Your task to perform on an android device: Go to accessibility settings Image 0: 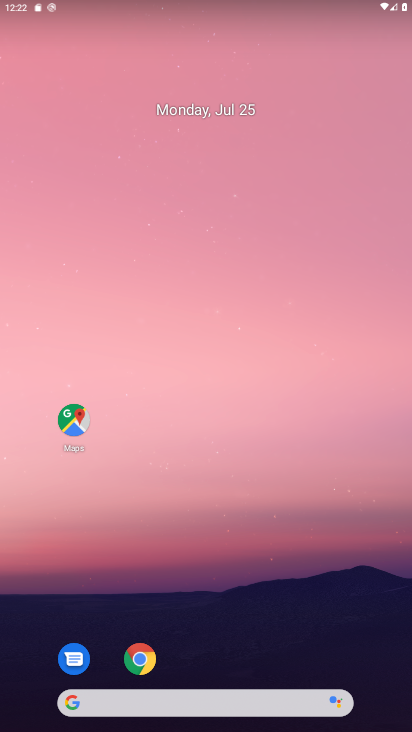
Step 0: press home button
Your task to perform on an android device: Go to accessibility settings Image 1: 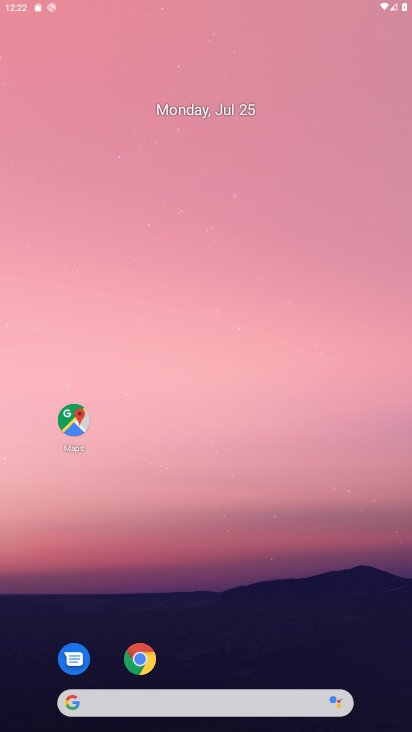
Step 1: drag from (224, 671) to (224, 41)
Your task to perform on an android device: Go to accessibility settings Image 2: 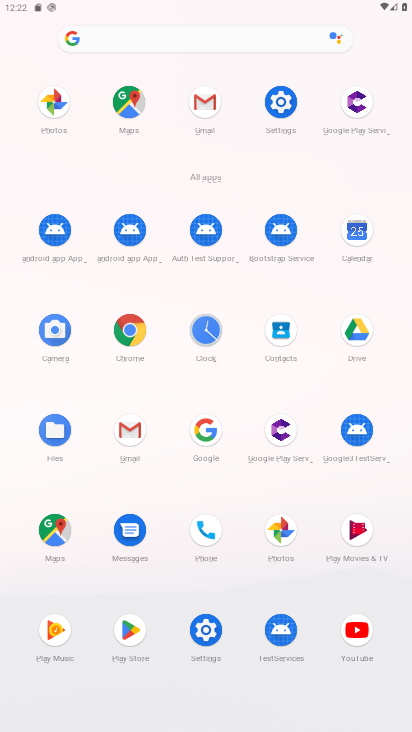
Step 2: click (279, 93)
Your task to perform on an android device: Go to accessibility settings Image 3: 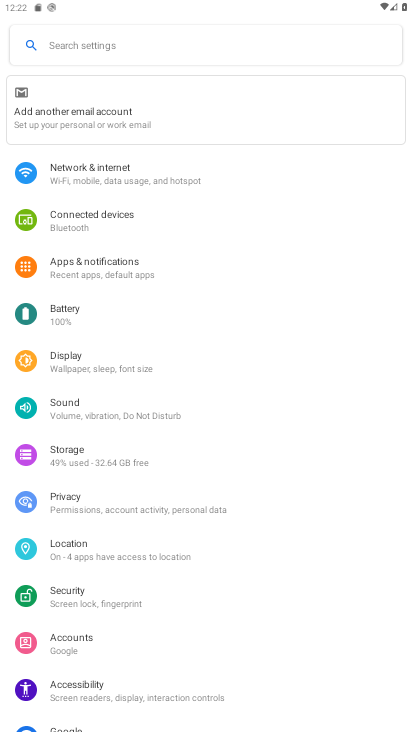
Step 3: click (110, 681)
Your task to perform on an android device: Go to accessibility settings Image 4: 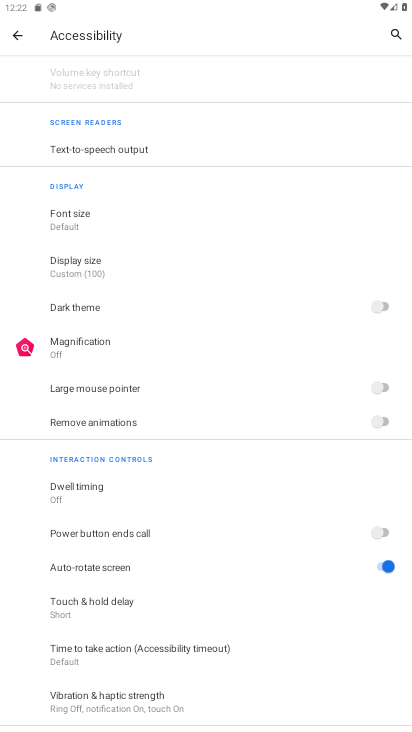
Step 4: task complete